Your task to perform on an android device: Go to display settings Image 0: 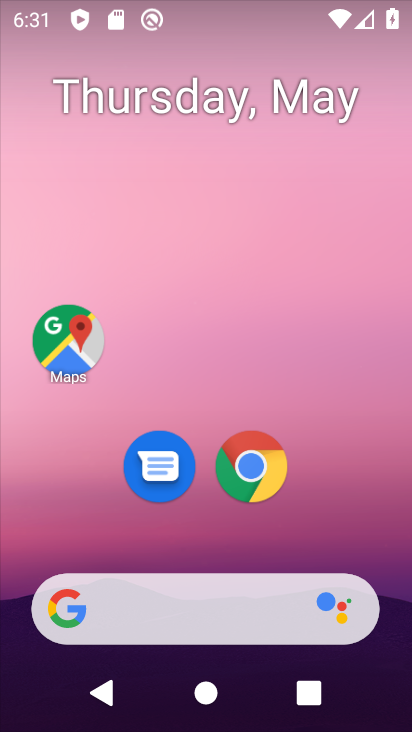
Step 0: drag from (330, 487) to (241, 137)
Your task to perform on an android device: Go to display settings Image 1: 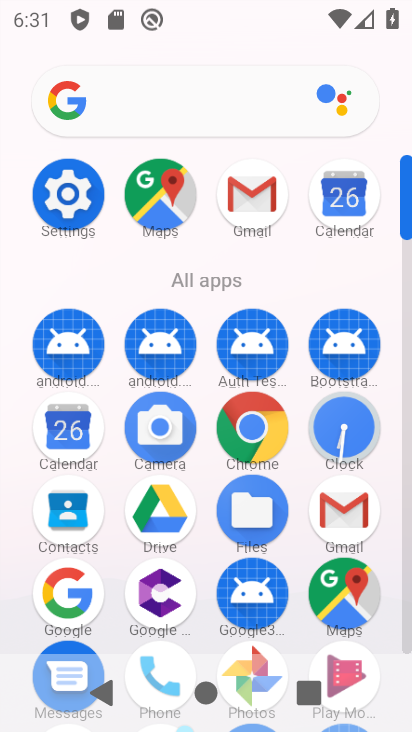
Step 1: click (62, 196)
Your task to perform on an android device: Go to display settings Image 2: 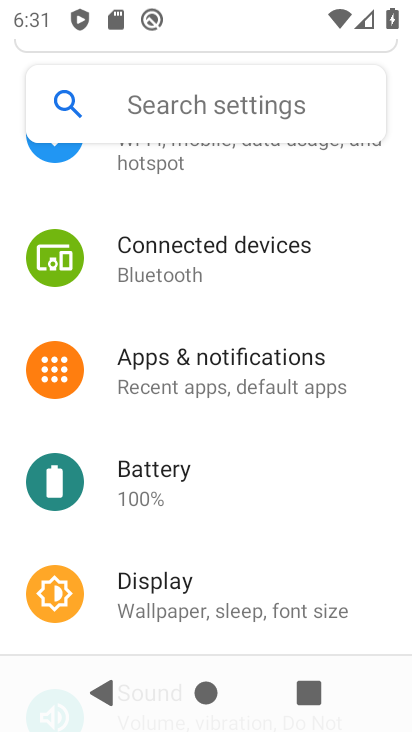
Step 2: click (150, 588)
Your task to perform on an android device: Go to display settings Image 3: 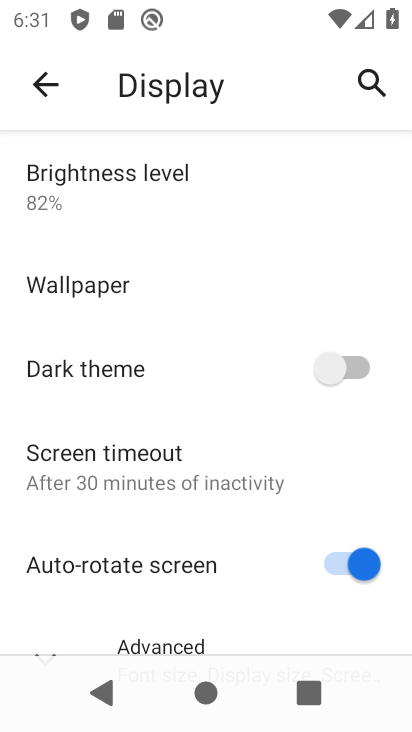
Step 3: task complete